Your task to perform on an android device: Find coffee shops on Maps Image 0: 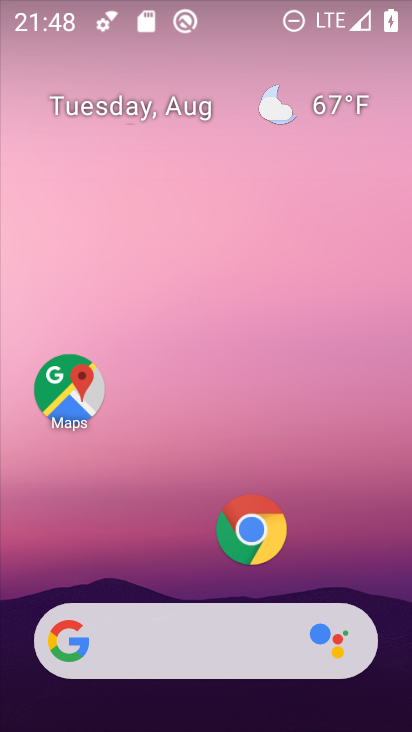
Step 0: click (405, 465)
Your task to perform on an android device: Find coffee shops on Maps Image 1: 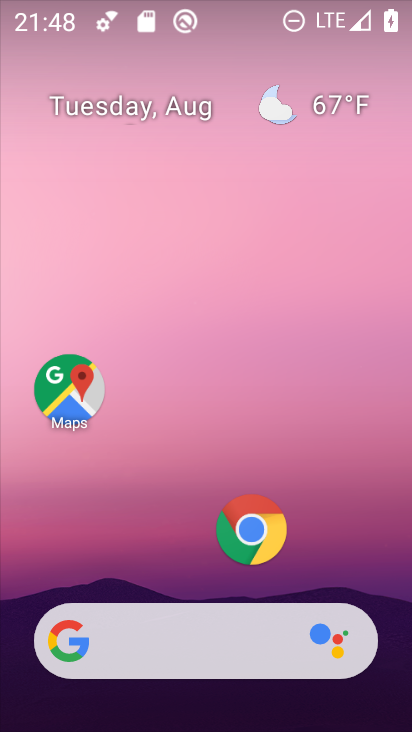
Step 1: drag from (112, 617) to (131, 277)
Your task to perform on an android device: Find coffee shops on Maps Image 2: 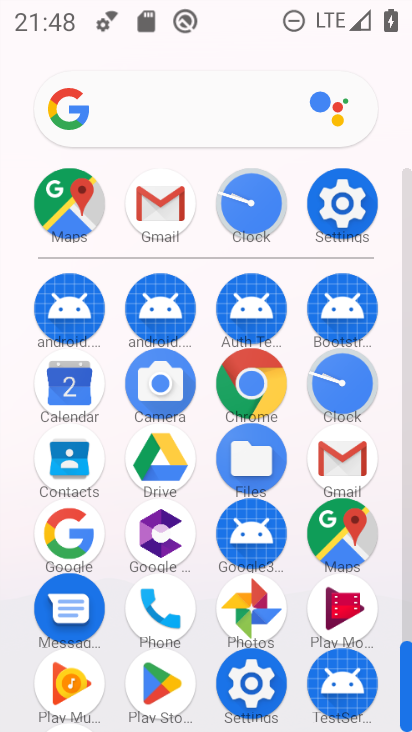
Step 2: click (341, 522)
Your task to perform on an android device: Find coffee shops on Maps Image 3: 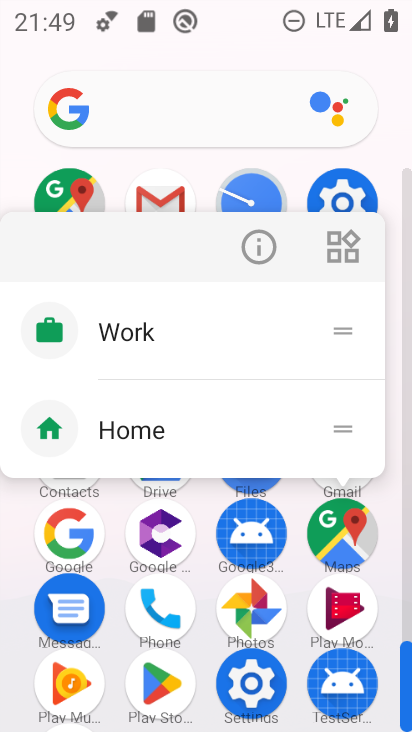
Step 3: click (253, 261)
Your task to perform on an android device: Find coffee shops on Maps Image 4: 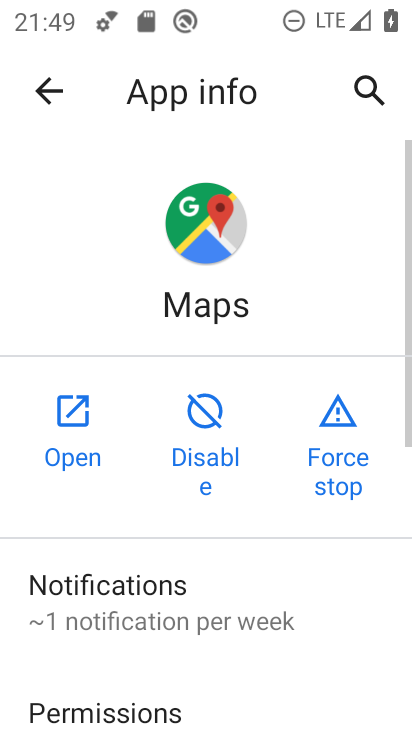
Step 4: click (79, 410)
Your task to perform on an android device: Find coffee shops on Maps Image 5: 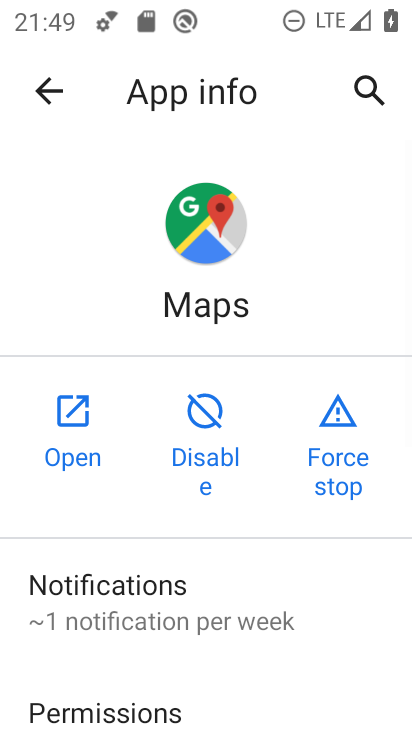
Step 5: click (79, 410)
Your task to perform on an android device: Find coffee shops on Maps Image 6: 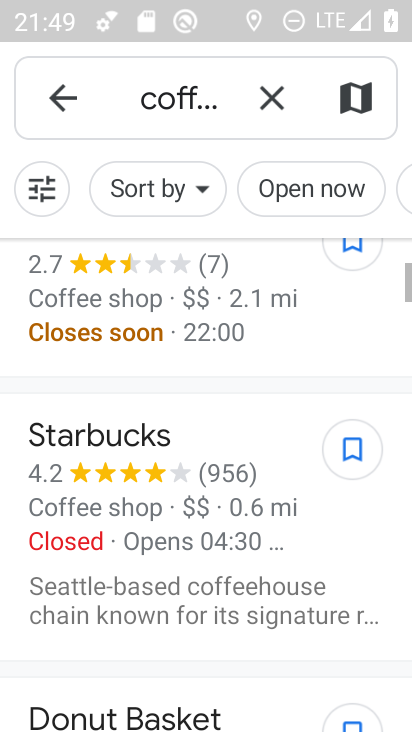
Step 6: task complete